Your task to perform on an android device: Do I have any events today? Image 0: 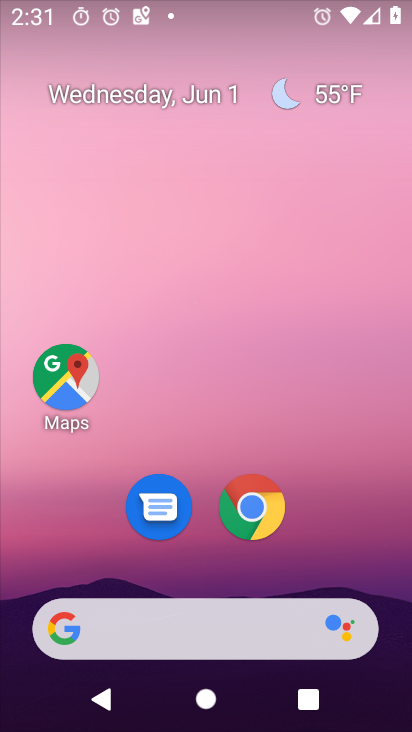
Step 0: drag from (342, 545) to (209, 64)
Your task to perform on an android device: Do I have any events today? Image 1: 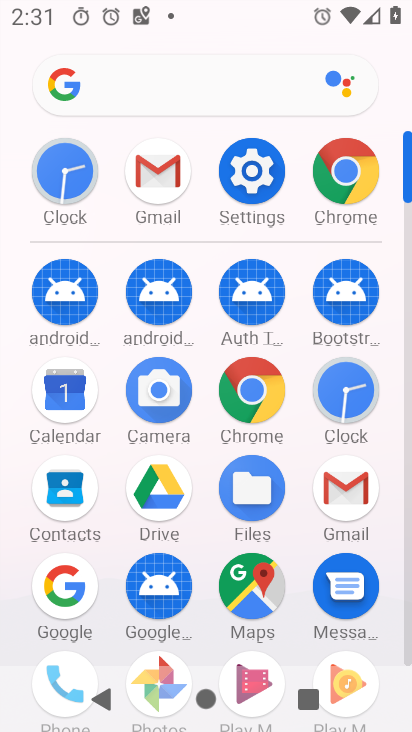
Step 1: click (59, 400)
Your task to perform on an android device: Do I have any events today? Image 2: 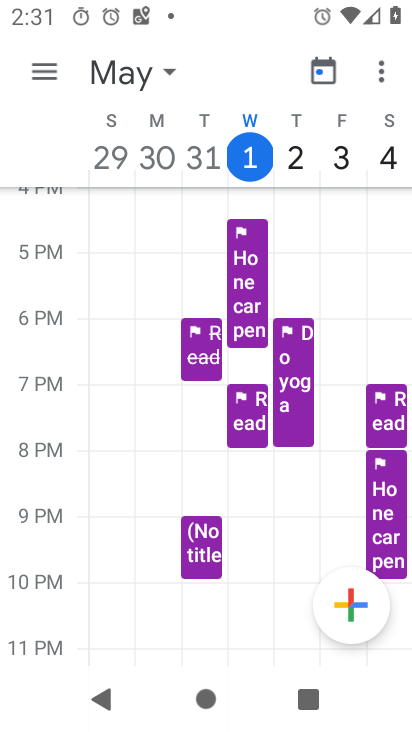
Step 2: click (55, 80)
Your task to perform on an android device: Do I have any events today? Image 3: 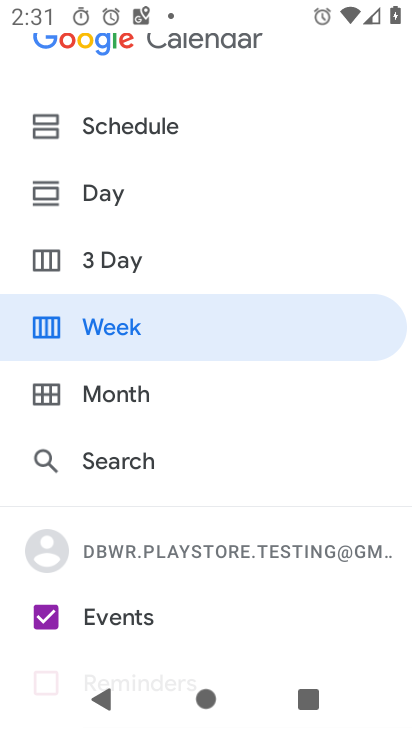
Step 3: click (72, 123)
Your task to perform on an android device: Do I have any events today? Image 4: 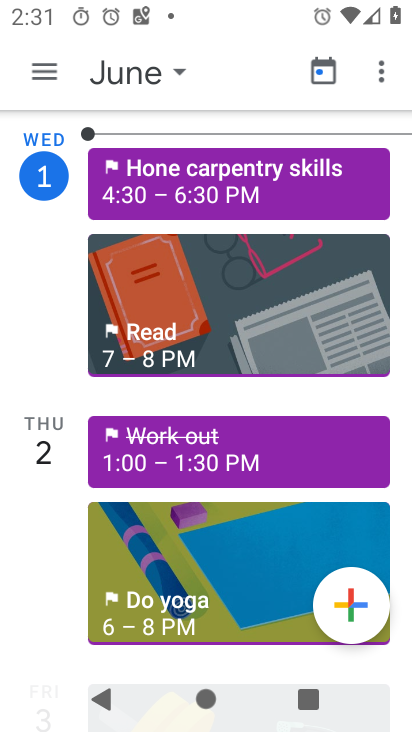
Step 4: click (183, 199)
Your task to perform on an android device: Do I have any events today? Image 5: 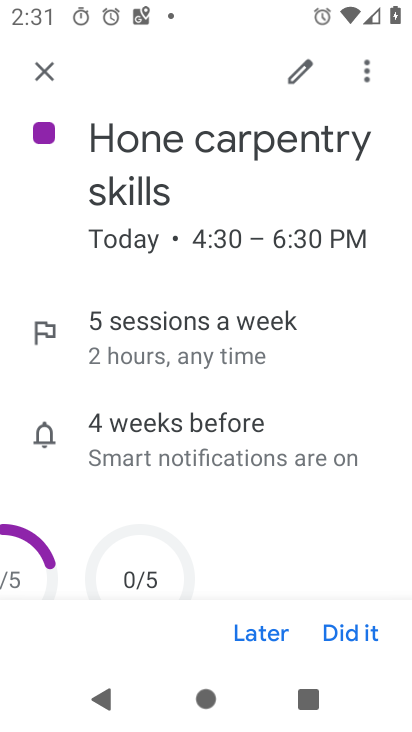
Step 5: task complete